Your task to perform on an android device: Search for vegetarian restaurants on Maps Image 0: 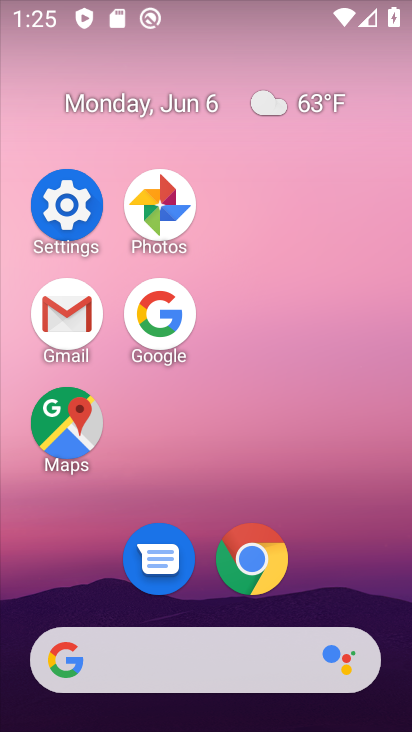
Step 0: click (79, 427)
Your task to perform on an android device: Search for vegetarian restaurants on Maps Image 1: 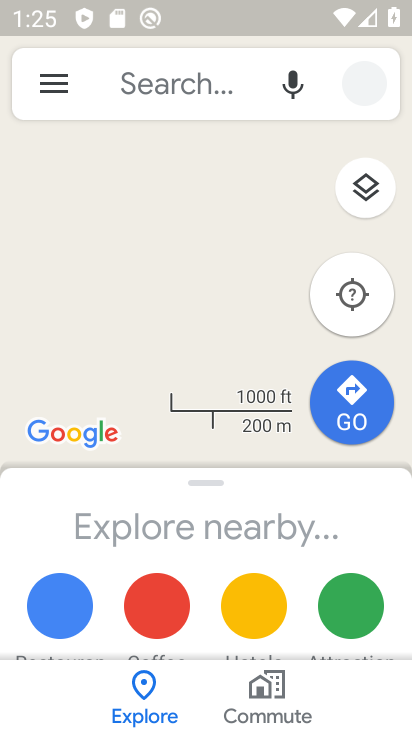
Step 1: click (197, 101)
Your task to perform on an android device: Search for vegetarian restaurants on Maps Image 2: 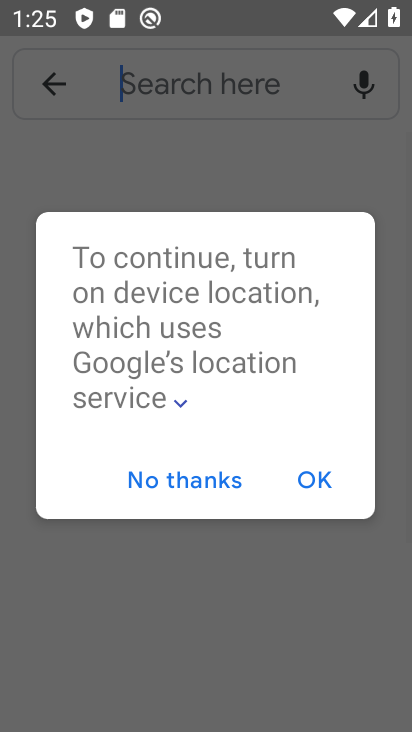
Step 2: click (303, 478)
Your task to perform on an android device: Search for vegetarian restaurants on Maps Image 3: 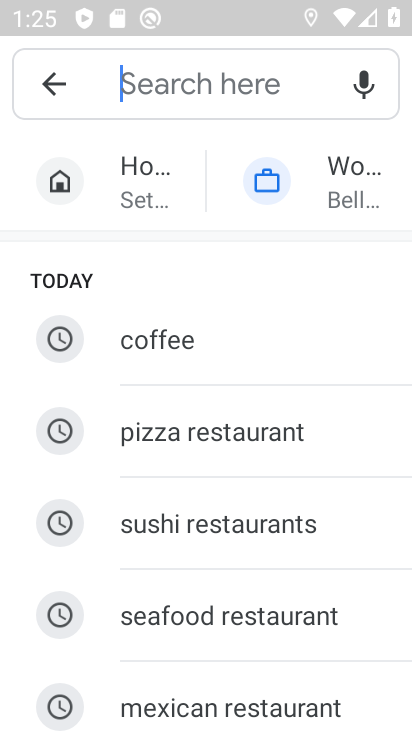
Step 3: drag from (303, 673) to (316, 272)
Your task to perform on an android device: Search for vegetarian restaurants on Maps Image 4: 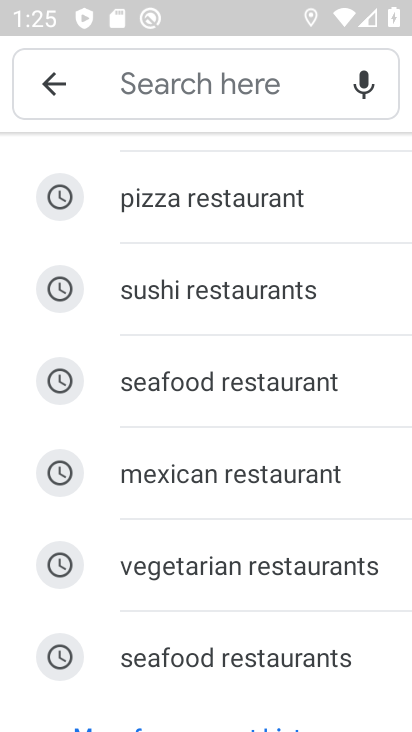
Step 4: click (255, 560)
Your task to perform on an android device: Search for vegetarian restaurants on Maps Image 5: 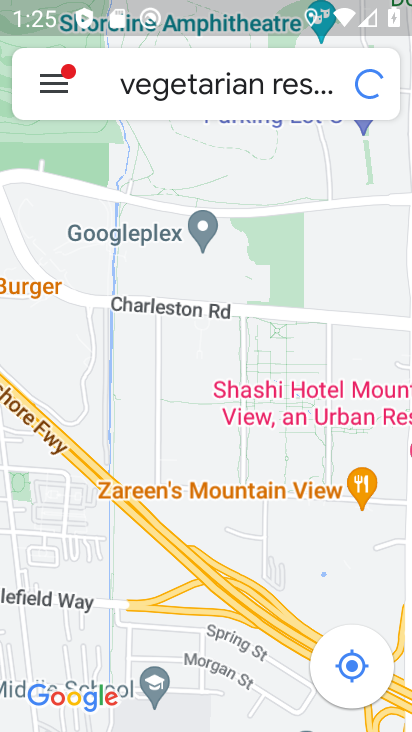
Step 5: task complete